Your task to perform on an android device: Open Chrome and go to settings Image 0: 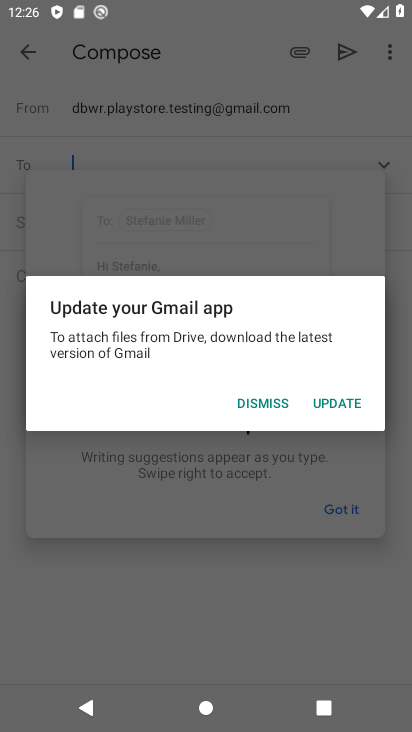
Step 0: press home button
Your task to perform on an android device: Open Chrome and go to settings Image 1: 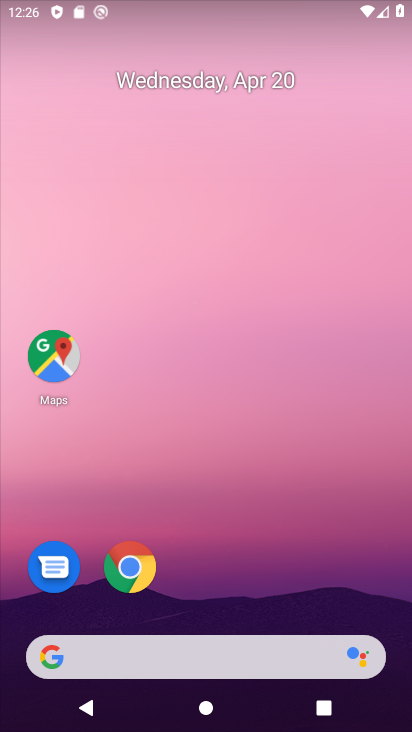
Step 1: drag from (262, 590) to (286, 68)
Your task to perform on an android device: Open Chrome and go to settings Image 2: 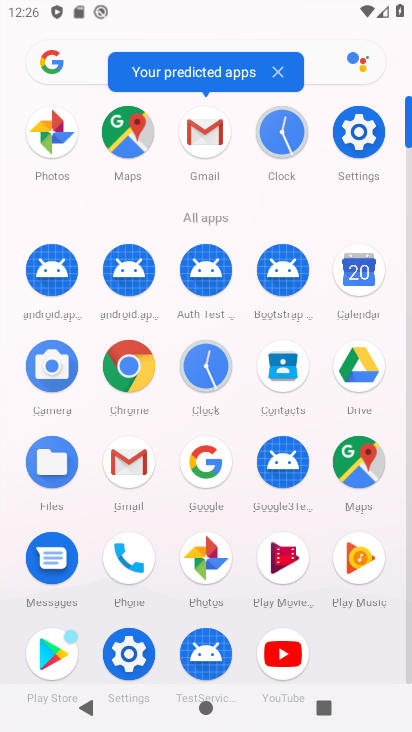
Step 2: click (121, 372)
Your task to perform on an android device: Open Chrome and go to settings Image 3: 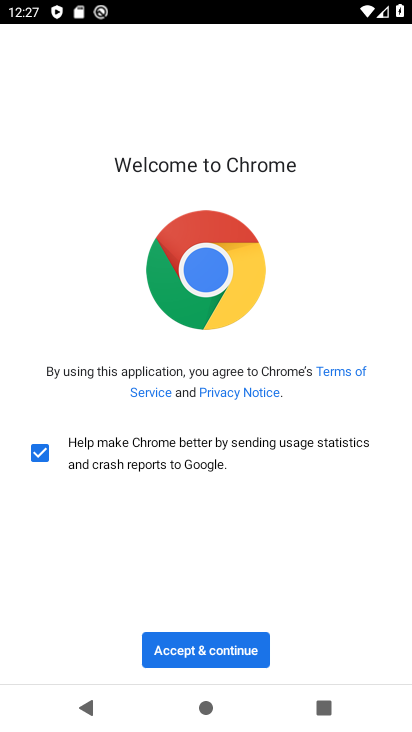
Step 3: click (238, 649)
Your task to perform on an android device: Open Chrome and go to settings Image 4: 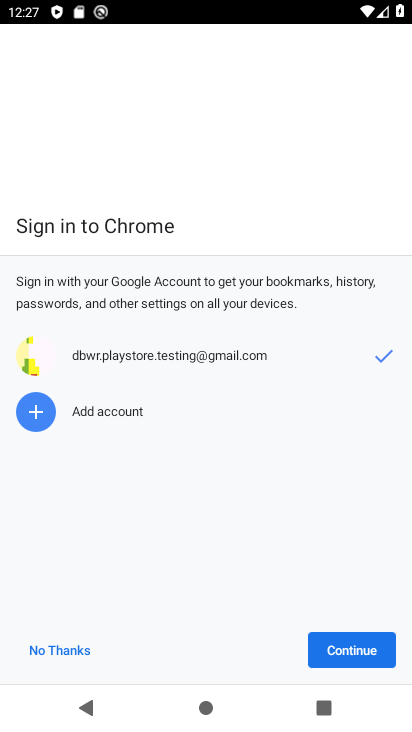
Step 4: click (353, 632)
Your task to perform on an android device: Open Chrome and go to settings Image 5: 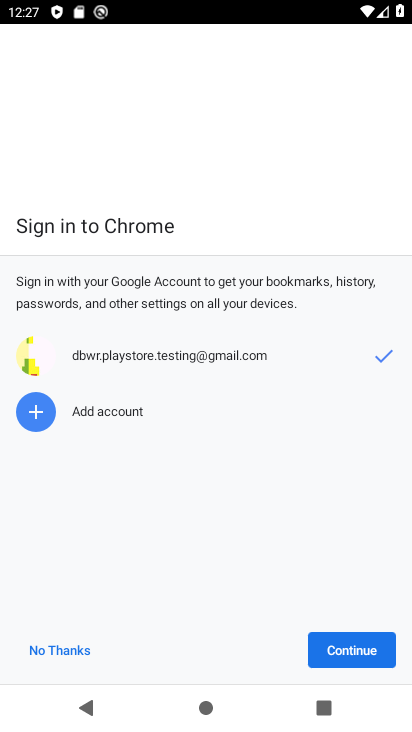
Step 5: click (351, 641)
Your task to perform on an android device: Open Chrome and go to settings Image 6: 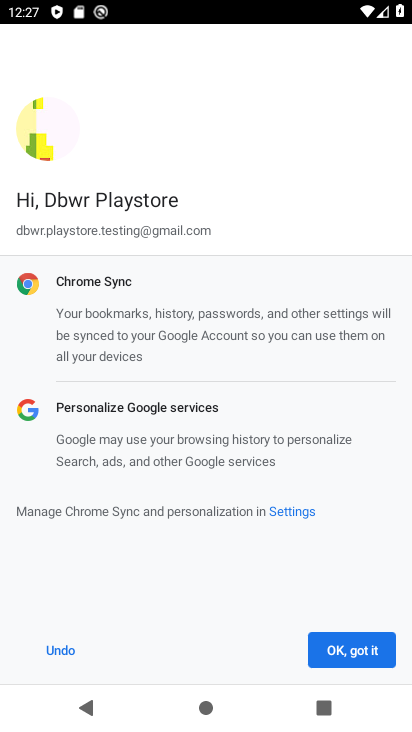
Step 6: click (372, 652)
Your task to perform on an android device: Open Chrome and go to settings Image 7: 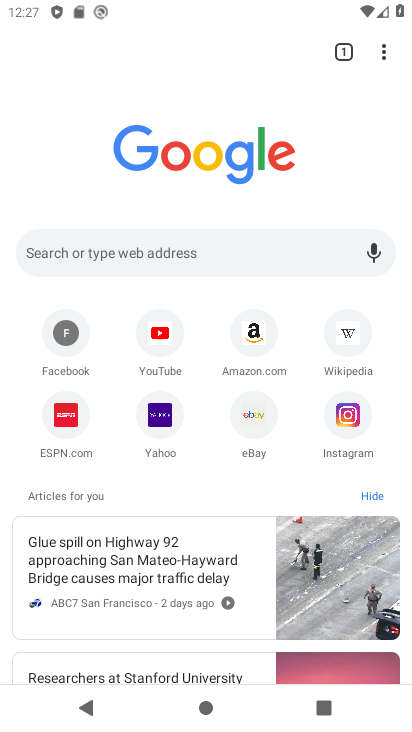
Step 7: task complete